Your task to perform on an android device: open app "Viber Messenger" (install if not already installed), go to login, and select forgot password Image 0: 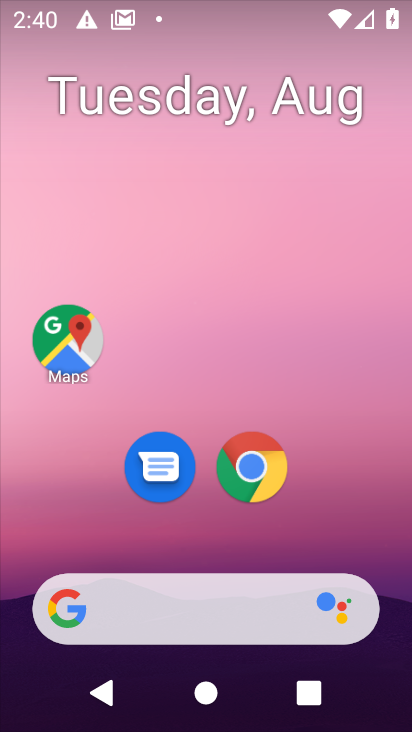
Step 0: drag from (376, 554) to (327, 53)
Your task to perform on an android device: open app "Viber Messenger" (install if not already installed), go to login, and select forgot password Image 1: 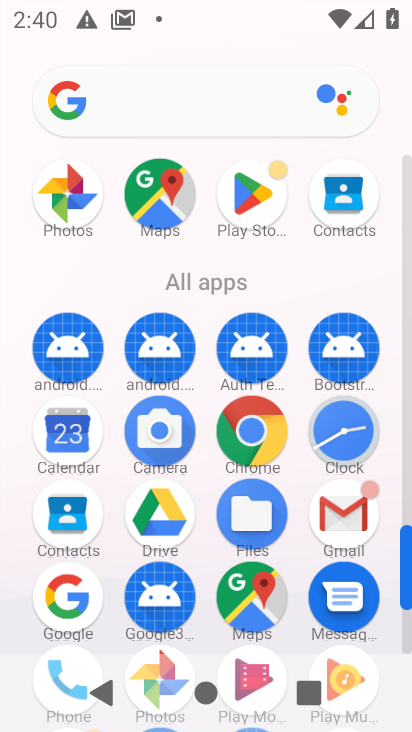
Step 1: click (264, 175)
Your task to perform on an android device: open app "Viber Messenger" (install if not already installed), go to login, and select forgot password Image 2: 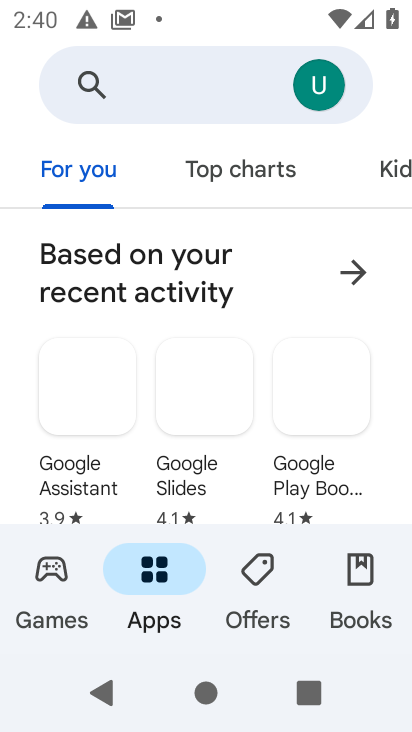
Step 2: click (231, 72)
Your task to perform on an android device: open app "Viber Messenger" (install if not already installed), go to login, and select forgot password Image 3: 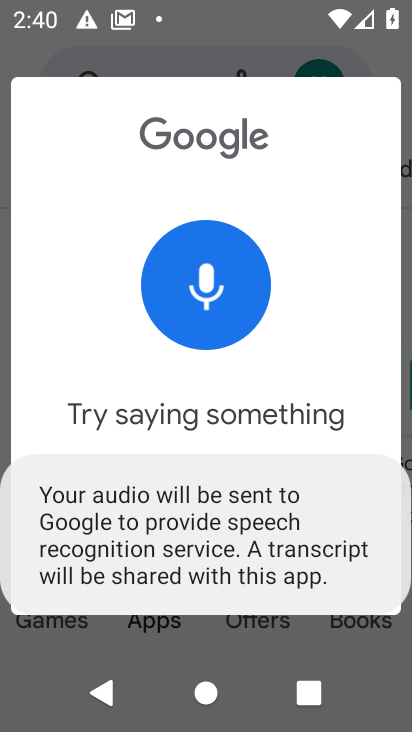
Step 3: type "viber"
Your task to perform on an android device: open app "Viber Messenger" (install if not already installed), go to login, and select forgot password Image 4: 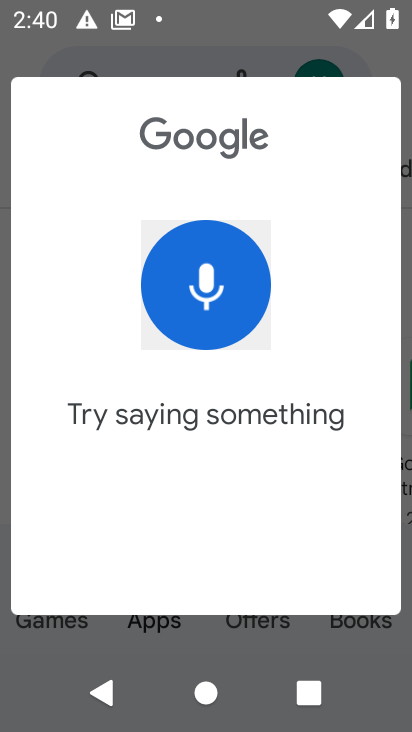
Step 4: click (71, 643)
Your task to perform on an android device: open app "Viber Messenger" (install if not already installed), go to login, and select forgot password Image 5: 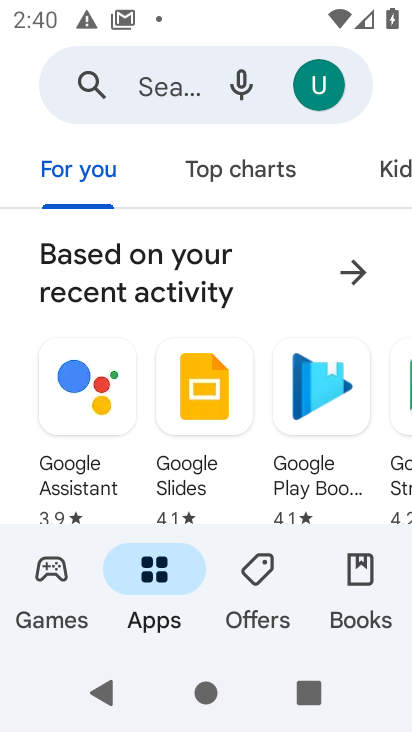
Step 5: click (148, 94)
Your task to perform on an android device: open app "Viber Messenger" (install if not already installed), go to login, and select forgot password Image 6: 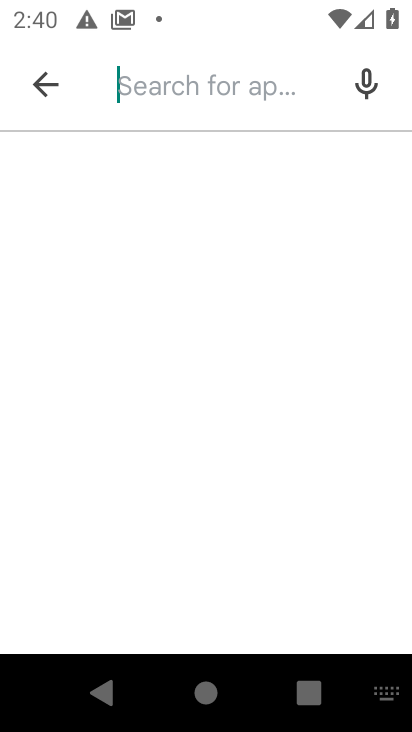
Step 6: type "viber"
Your task to perform on an android device: open app "Viber Messenger" (install if not already installed), go to login, and select forgot password Image 7: 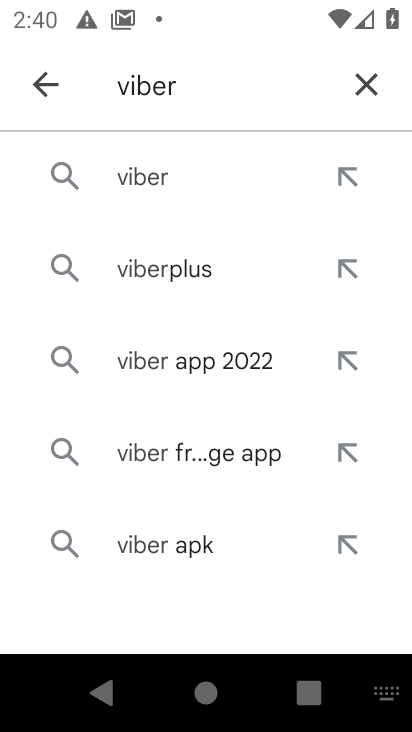
Step 7: click (221, 170)
Your task to perform on an android device: open app "Viber Messenger" (install if not already installed), go to login, and select forgot password Image 8: 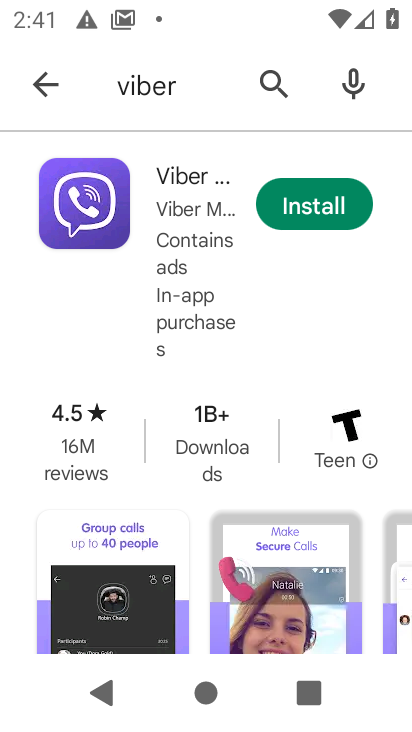
Step 8: click (297, 201)
Your task to perform on an android device: open app "Viber Messenger" (install if not already installed), go to login, and select forgot password Image 9: 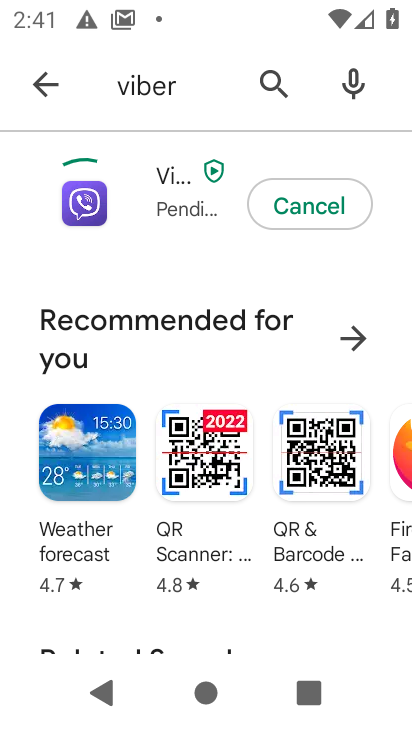
Step 9: task complete